Your task to perform on an android device: Go to Reddit.com Image 0: 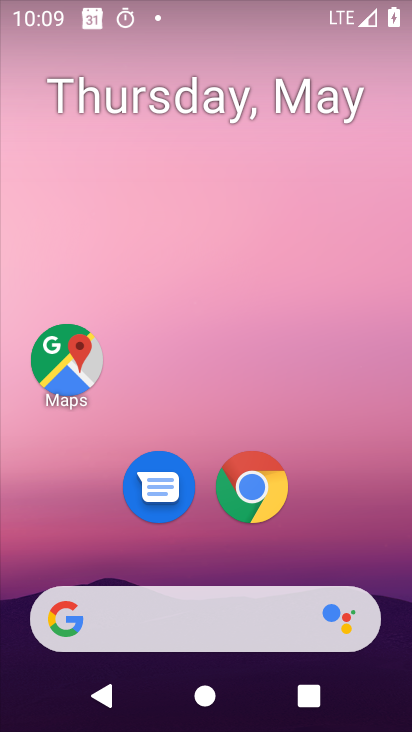
Step 0: drag from (196, 591) to (192, 195)
Your task to perform on an android device: Go to Reddit.com Image 1: 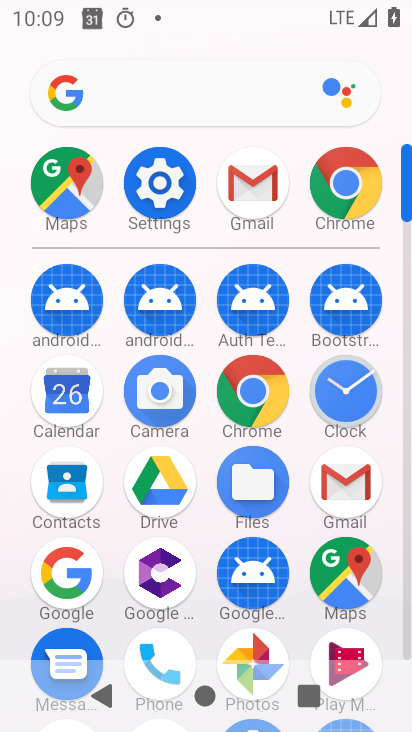
Step 1: click (324, 203)
Your task to perform on an android device: Go to Reddit.com Image 2: 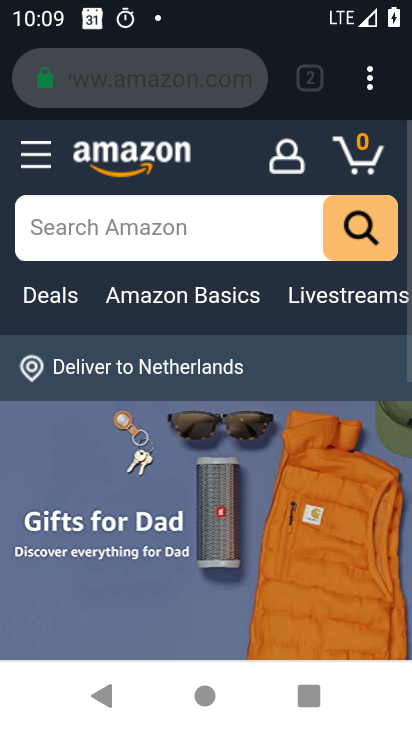
Step 2: click (171, 84)
Your task to perform on an android device: Go to Reddit.com Image 3: 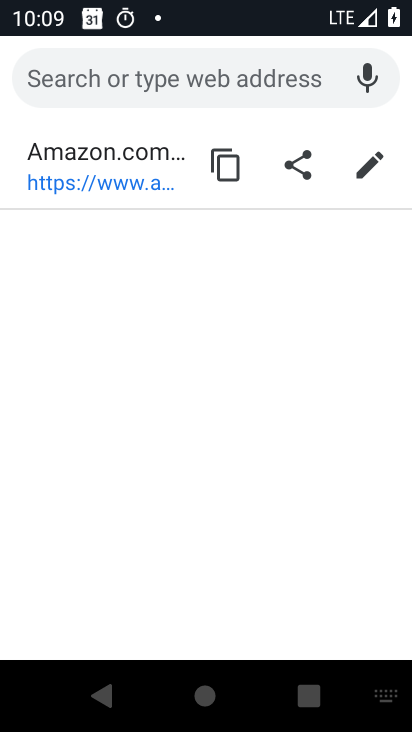
Step 3: type "reddit"
Your task to perform on an android device: Go to Reddit.com Image 4: 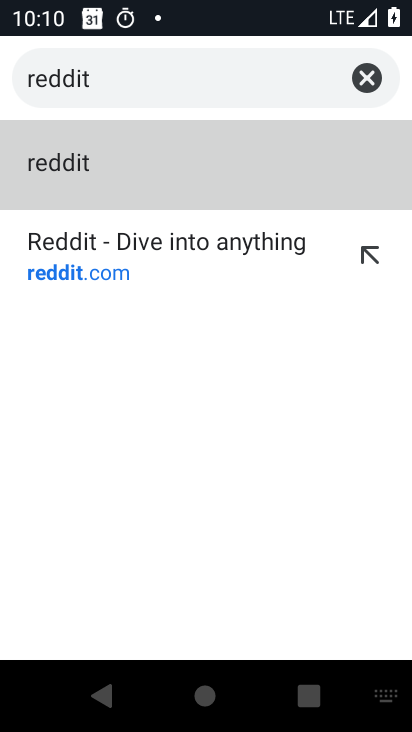
Step 4: click (102, 267)
Your task to perform on an android device: Go to Reddit.com Image 5: 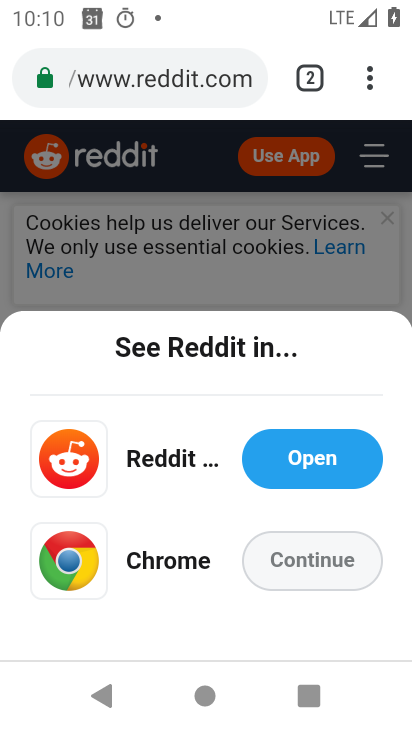
Step 5: click (313, 569)
Your task to perform on an android device: Go to Reddit.com Image 6: 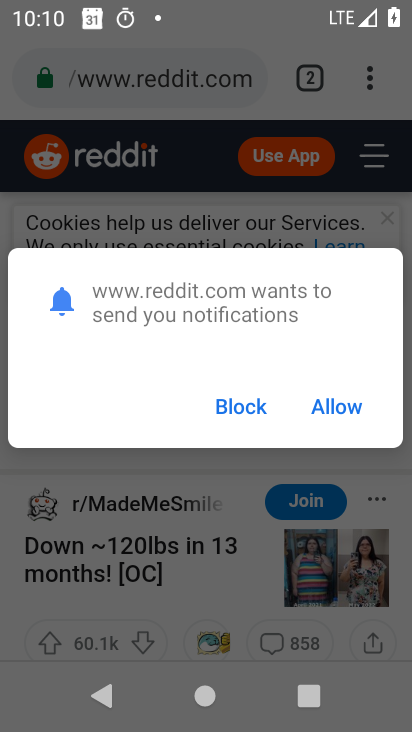
Step 6: task complete